Your task to perform on an android device: add a label to a message in the gmail app Image 0: 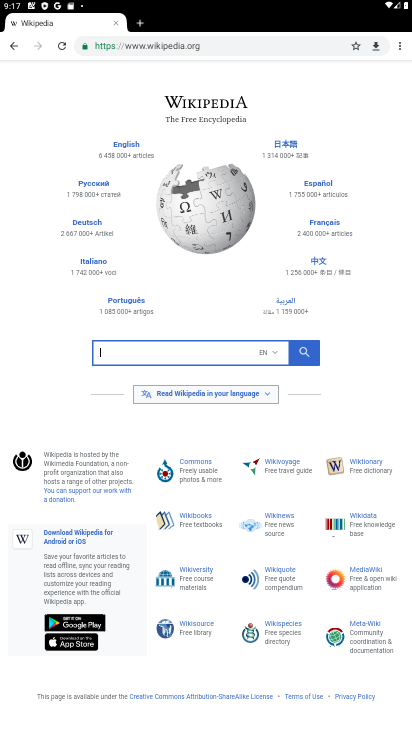
Step 0: press home button
Your task to perform on an android device: add a label to a message in the gmail app Image 1: 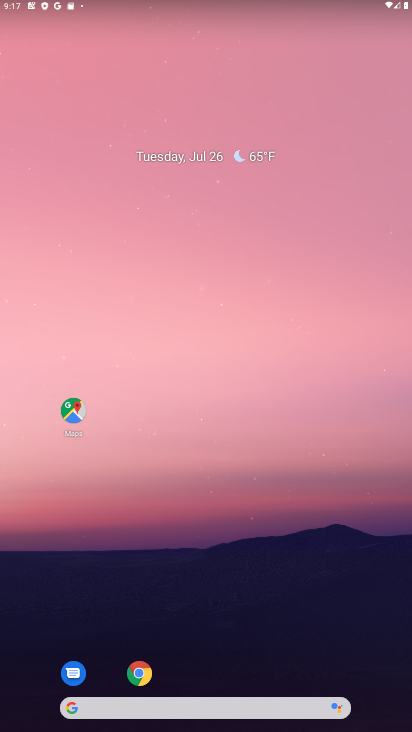
Step 1: drag from (366, 687) to (358, 179)
Your task to perform on an android device: add a label to a message in the gmail app Image 2: 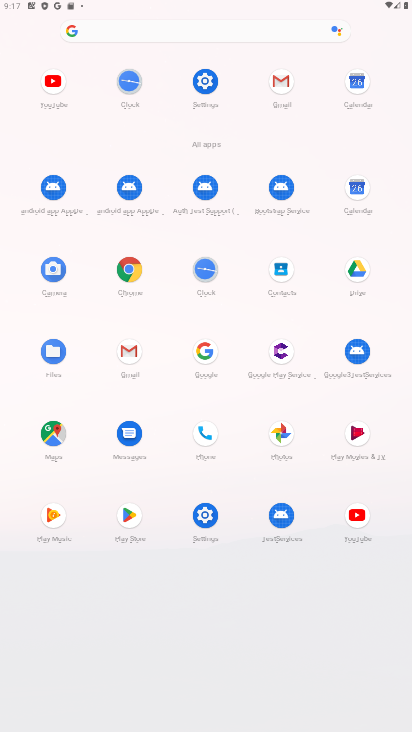
Step 2: click (129, 349)
Your task to perform on an android device: add a label to a message in the gmail app Image 3: 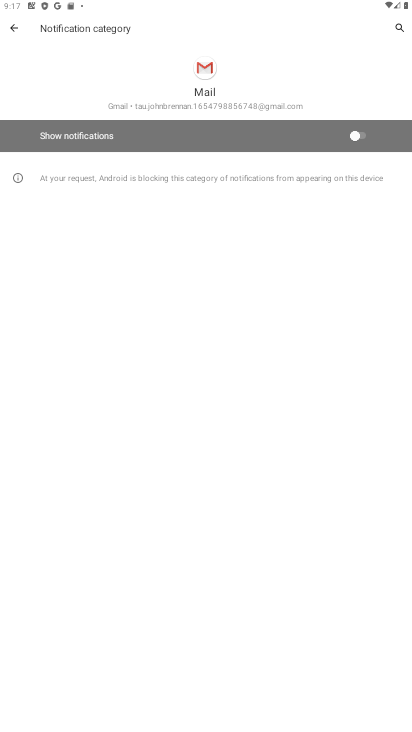
Step 3: press back button
Your task to perform on an android device: add a label to a message in the gmail app Image 4: 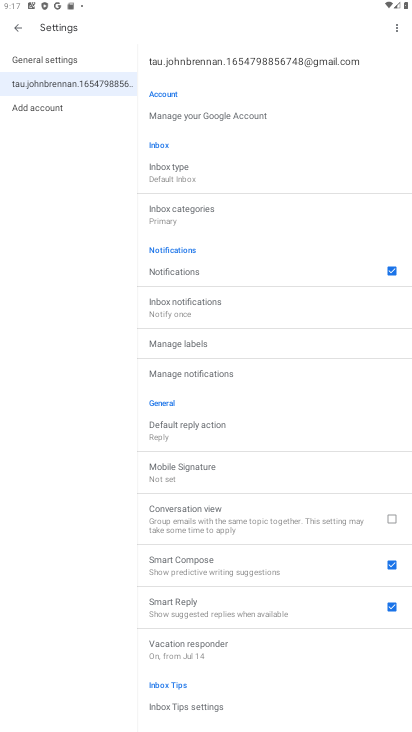
Step 4: press back button
Your task to perform on an android device: add a label to a message in the gmail app Image 5: 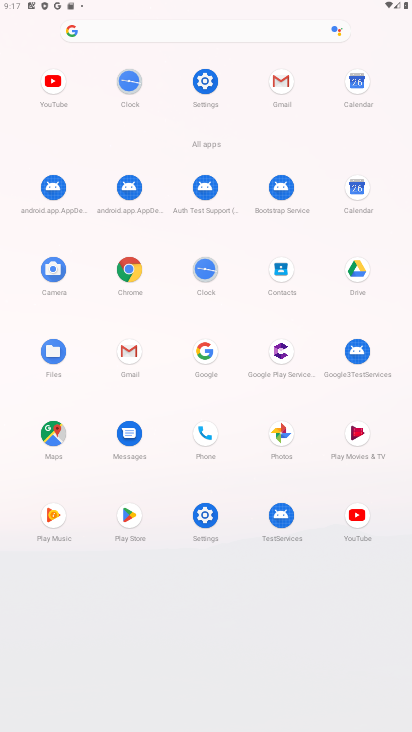
Step 5: click (127, 352)
Your task to perform on an android device: add a label to a message in the gmail app Image 6: 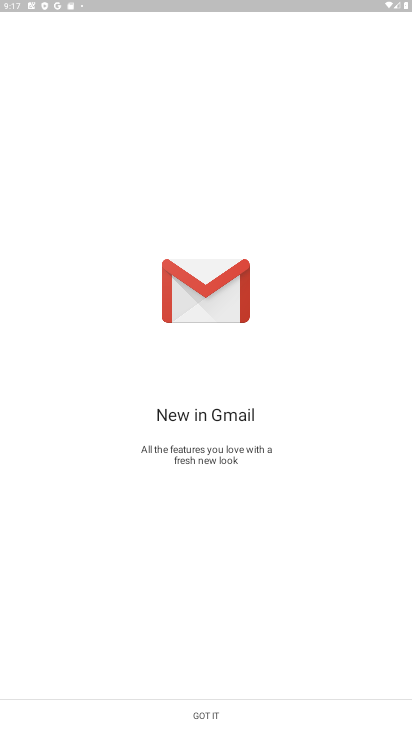
Step 6: click (208, 707)
Your task to perform on an android device: add a label to a message in the gmail app Image 7: 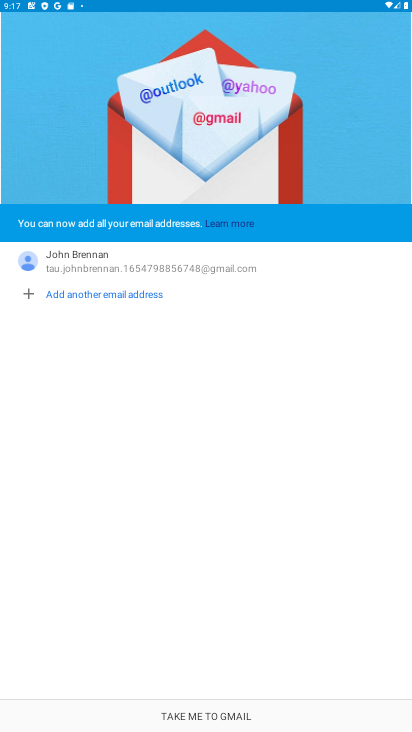
Step 7: click (208, 707)
Your task to perform on an android device: add a label to a message in the gmail app Image 8: 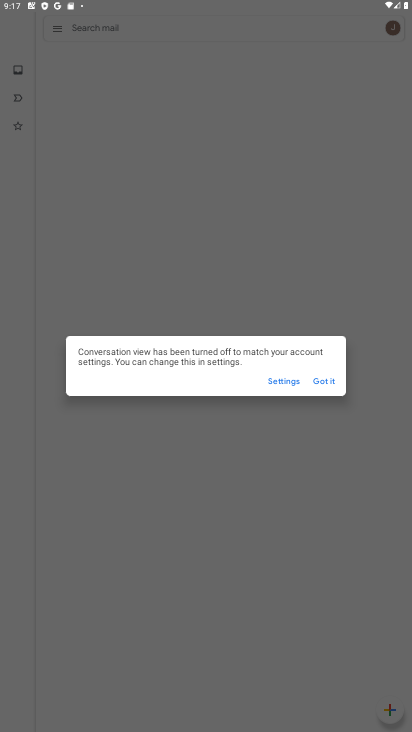
Step 8: click (326, 378)
Your task to perform on an android device: add a label to a message in the gmail app Image 9: 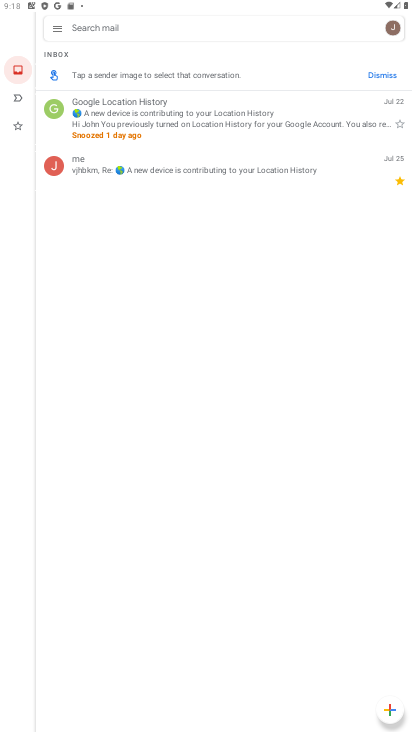
Step 9: click (53, 30)
Your task to perform on an android device: add a label to a message in the gmail app Image 10: 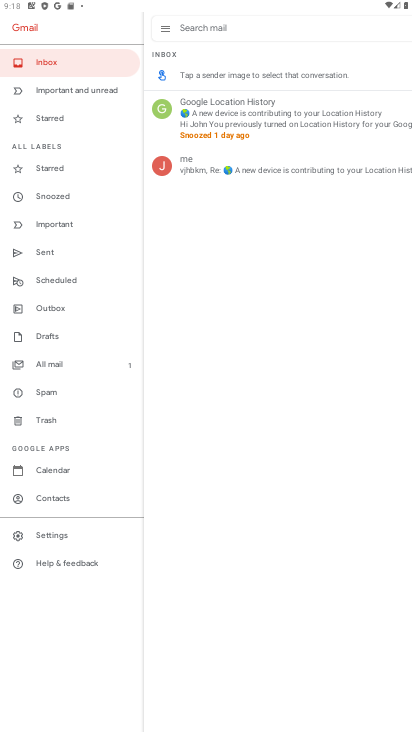
Step 10: click (49, 361)
Your task to perform on an android device: add a label to a message in the gmail app Image 11: 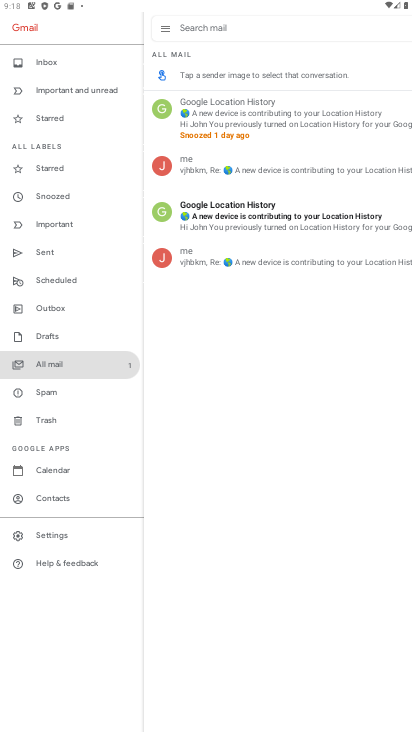
Step 11: click (274, 168)
Your task to perform on an android device: add a label to a message in the gmail app Image 12: 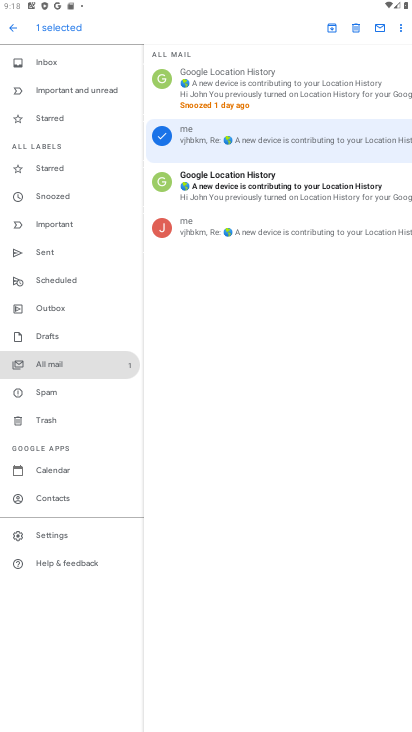
Step 12: click (245, 139)
Your task to perform on an android device: add a label to a message in the gmail app Image 13: 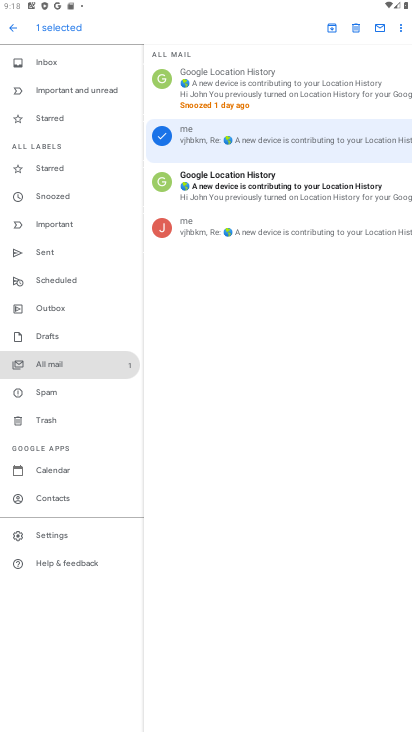
Step 13: click (245, 139)
Your task to perform on an android device: add a label to a message in the gmail app Image 14: 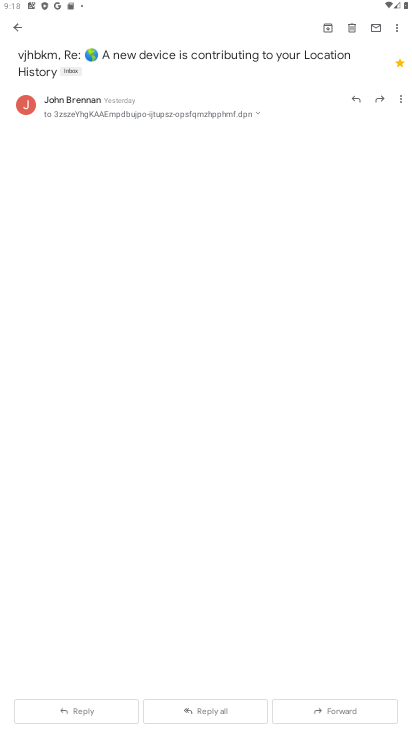
Step 14: click (394, 33)
Your task to perform on an android device: add a label to a message in the gmail app Image 15: 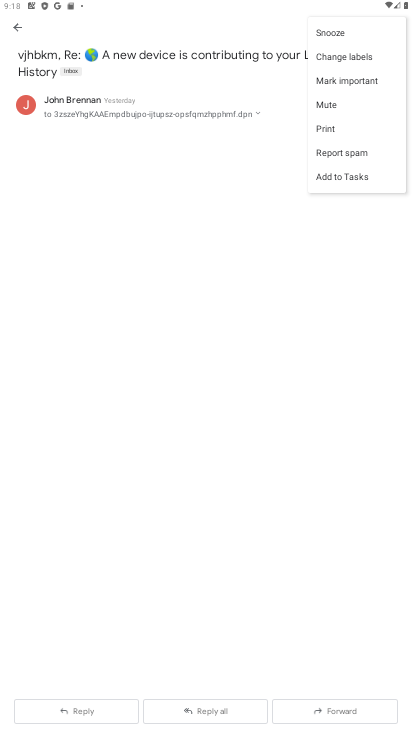
Step 15: click (336, 54)
Your task to perform on an android device: add a label to a message in the gmail app Image 16: 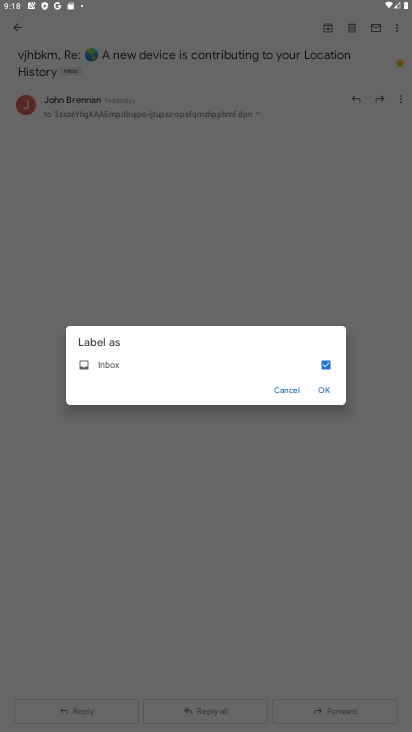
Step 16: click (325, 391)
Your task to perform on an android device: add a label to a message in the gmail app Image 17: 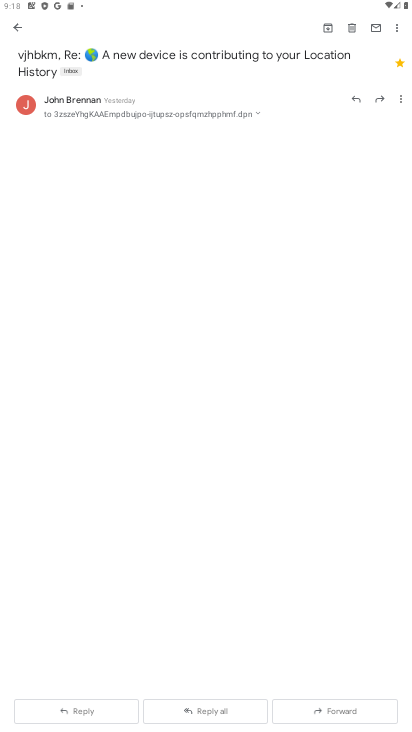
Step 17: task complete